Your task to perform on an android device: Go to battery settings Image 0: 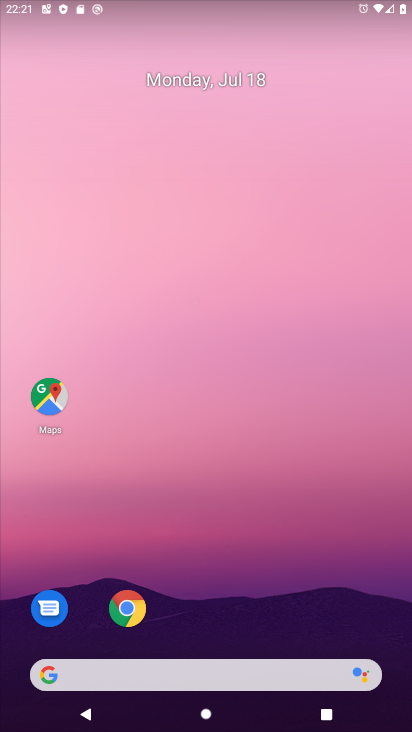
Step 0: drag from (46, 686) to (149, 38)
Your task to perform on an android device: Go to battery settings Image 1: 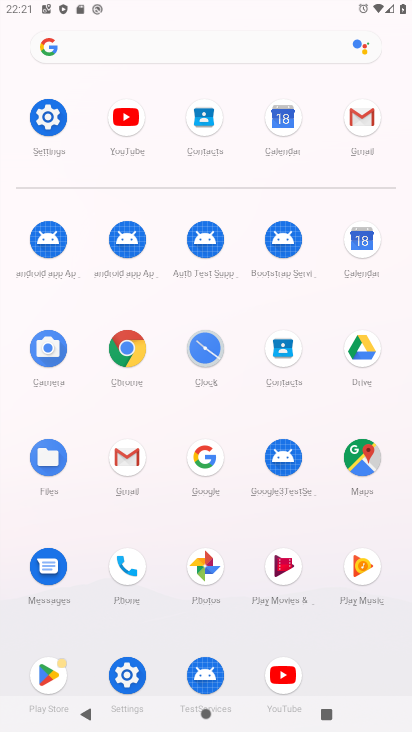
Step 1: click (131, 672)
Your task to perform on an android device: Go to battery settings Image 2: 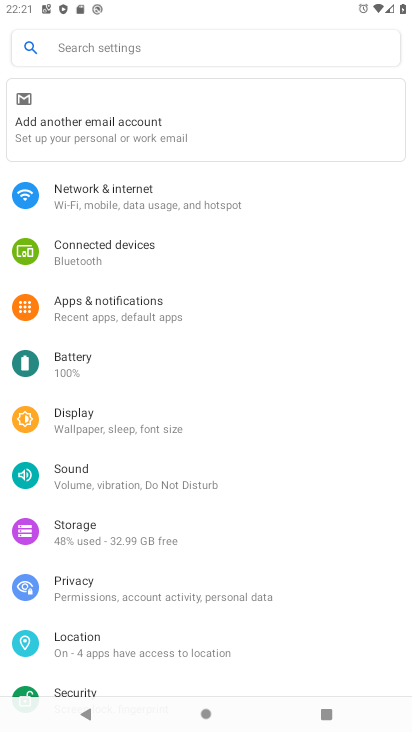
Step 2: click (108, 367)
Your task to perform on an android device: Go to battery settings Image 3: 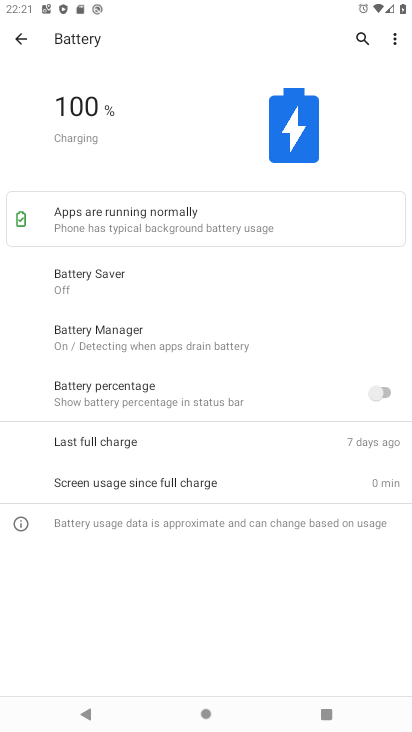
Step 3: task complete